Your task to perform on an android device: Open calendar and show me the third week of next month Image 0: 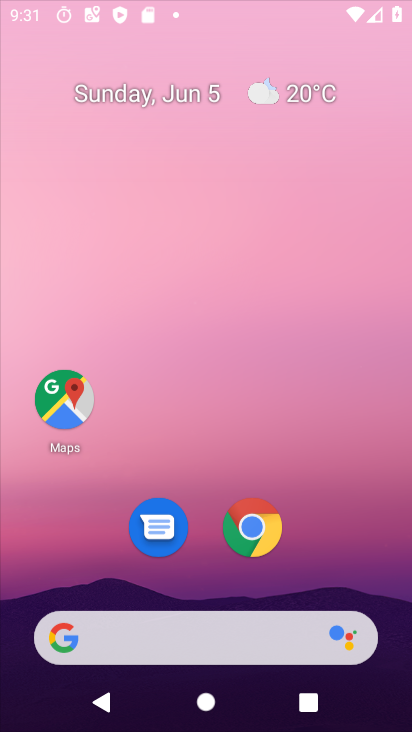
Step 0: click (367, 16)
Your task to perform on an android device: Open calendar and show me the third week of next month Image 1: 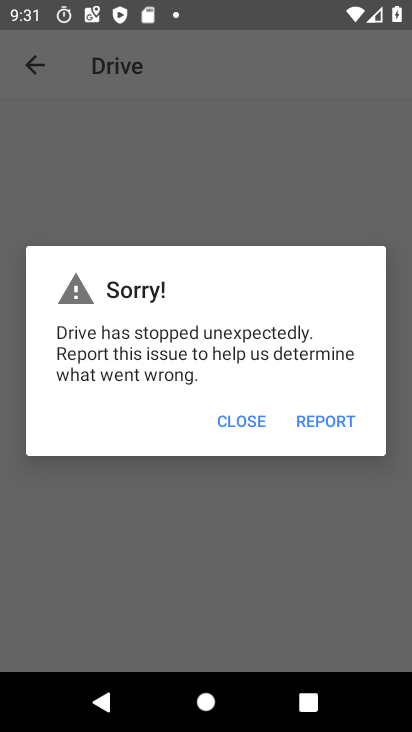
Step 1: press home button
Your task to perform on an android device: Open calendar and show me the third week of next month Image 2: 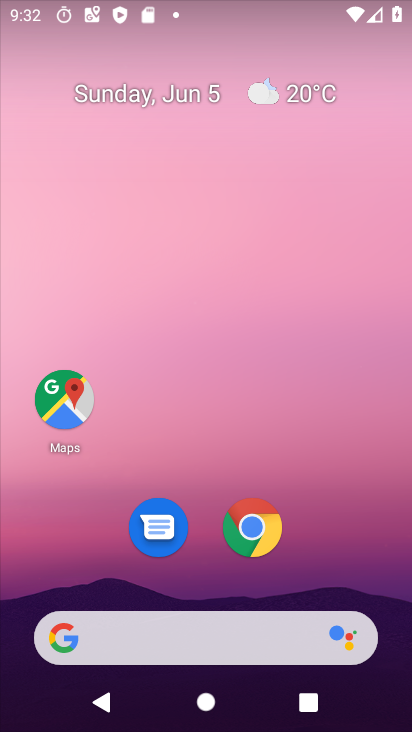
Step 2: drag from (338, 539) to (292, 70)
Your task to perform on an android device: Open calendar and show me the third week of next month Image 3: 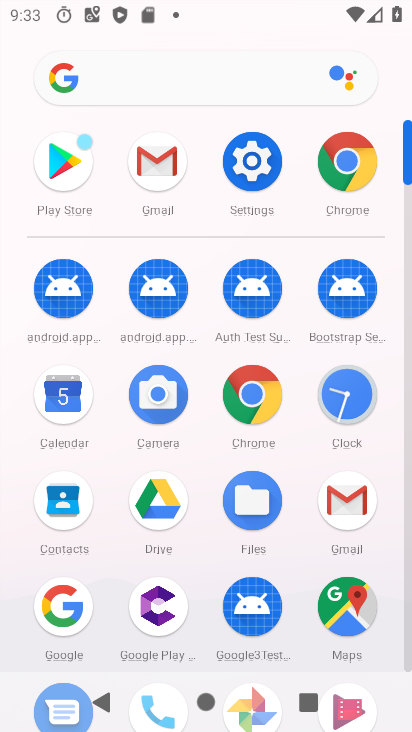
Step 3: click (69, 408)
Your task to perform on an android device: Open calendar and show me the third week of next month Image 4: 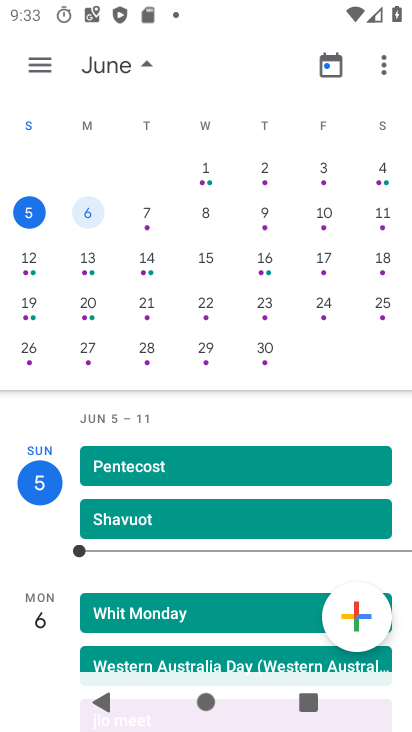
Step 4: drag from (342, 243) to (54, 237)
Your task to perform on an android device: Open calendar and show me the third week of next month Image 5: 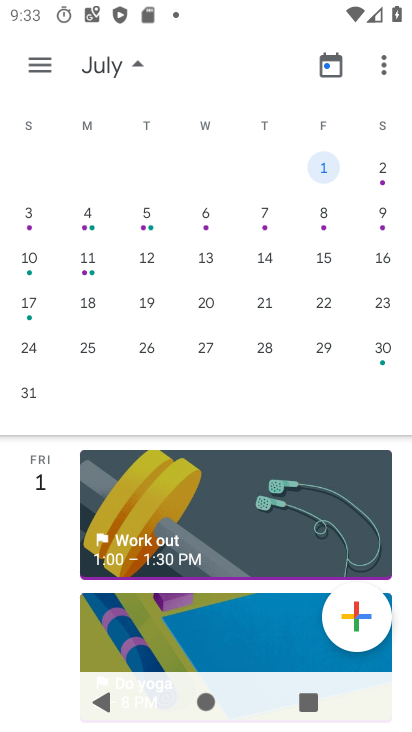
Step 5: click (268, 306)
Your task to perform on an android device: Open calendar and show me the third week of next month Image 6: 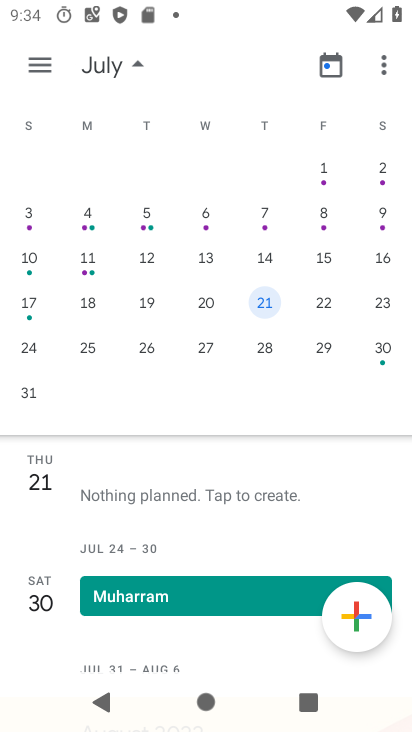
Step 6: task complete